Your task to perform on an android device: refresh tabs in the chrome app Image 0: 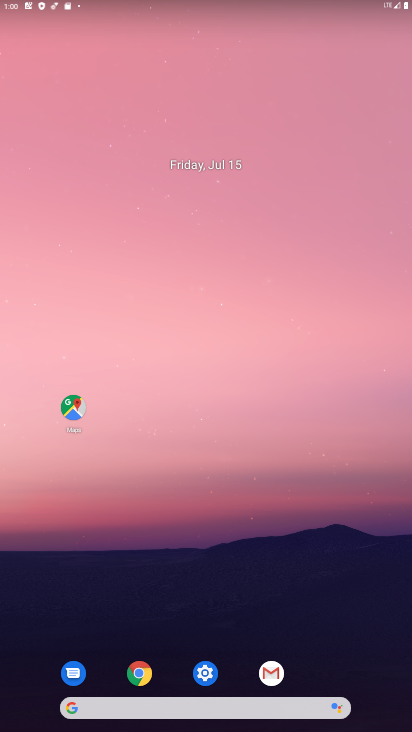
Step 0: press home button
Your task to perform on an android device: refresh tabs in the chrome app Image 1: 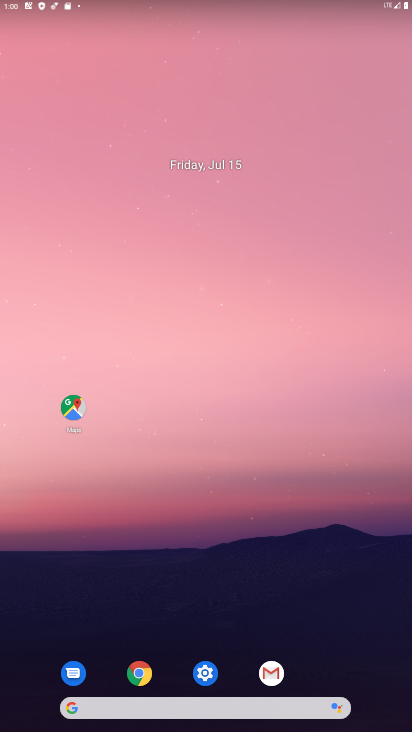
Step 1: click (144, 671)
Your task to perform on an android device: refresh tabs in the chrome app Image 2: 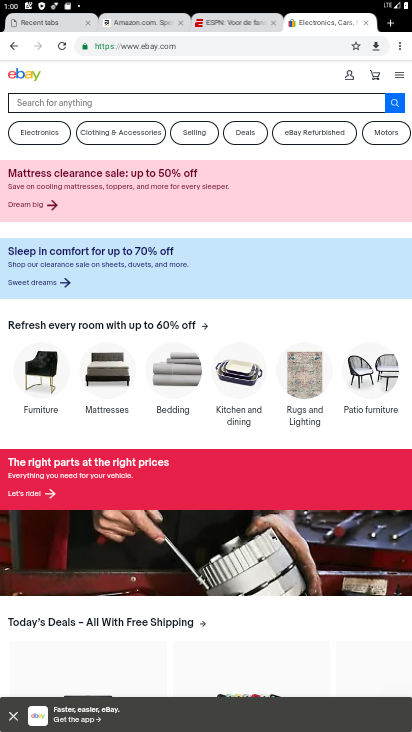
Step 2: click (63, 44)
Your task to perform on an android device: refresh tabs in the chrome app Image 3: 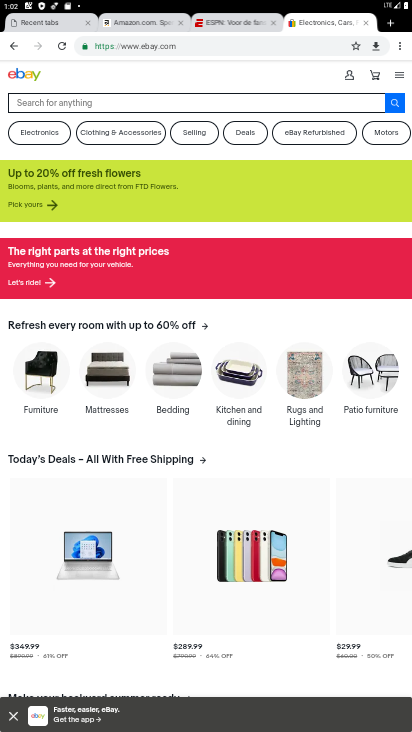
Step 3: task complete